Your task to perform on an android device: check the backup settings in the google photos Image 0: 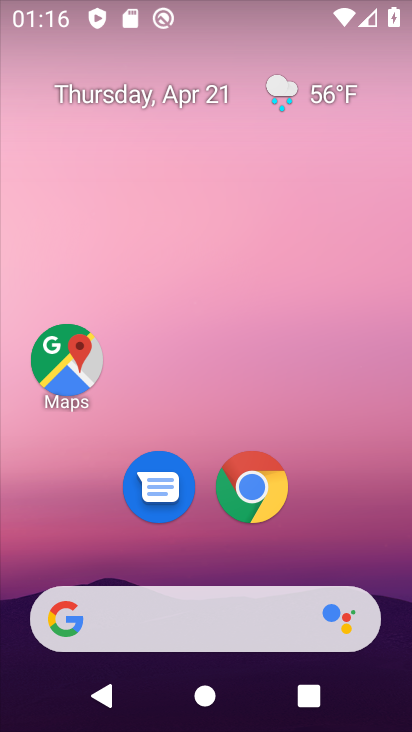
Step 0: drag from (332, 548) to (324, 90)
Your task to perform on an android device: check the backup settings in the google photos Image 1: 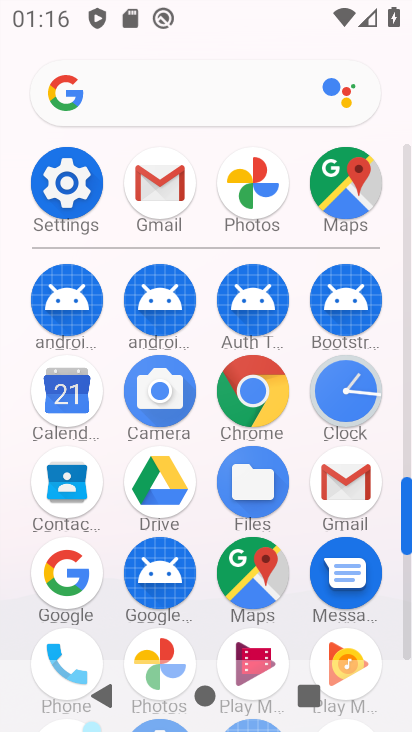
Step 1: click (248, 196)
Your task to perform on an android device: check the backup settings in the google photos Image 2: 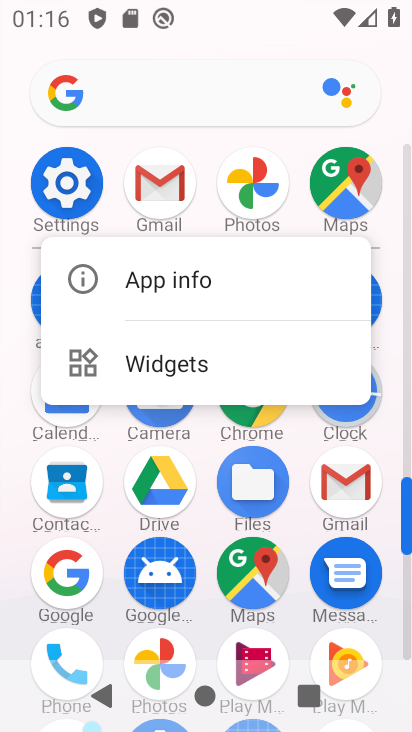
Step 2: click (245, 198)
Your task to perform on an android device: check the backup settings in the google photos Image 3: 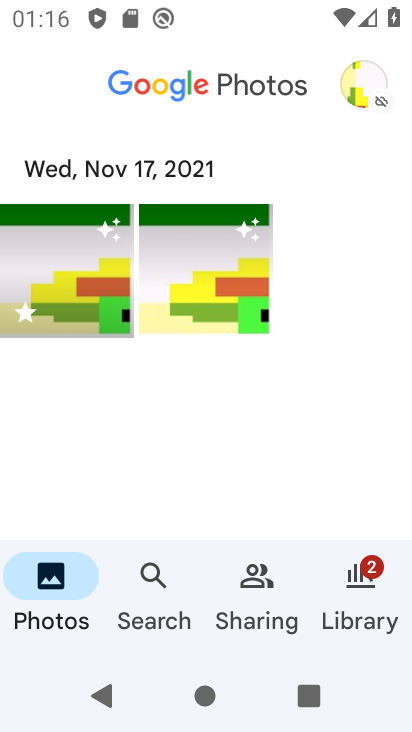
Step 3: click (361, 83)
Your task to perform on an android device: check the backup settings in the google photos Image 4: 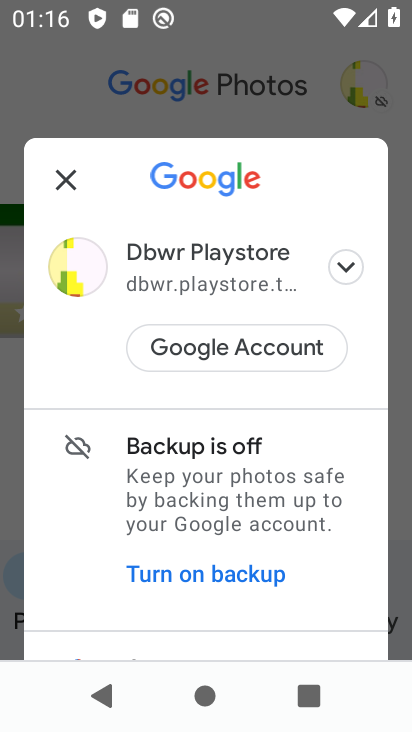
Step 4: drag from (257, 511) to (263, 195)
Your task to perform on an android device: check the backup settings in the google photos Image 5: 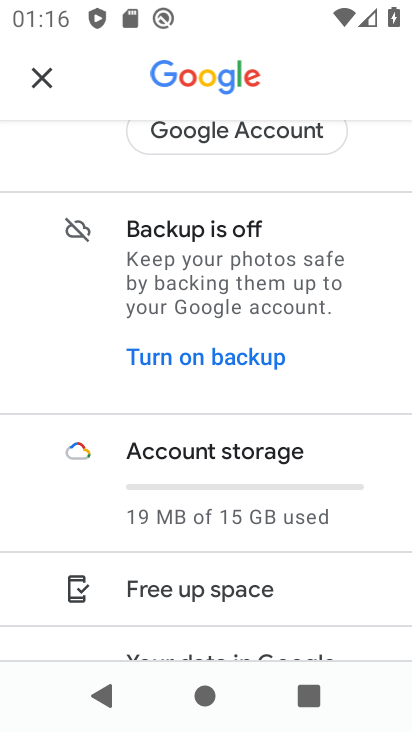
Step 5: drag from (221, 593) to (283, 318)
Your task to perform on an android device: check the backup settings in the google photos Image 6: 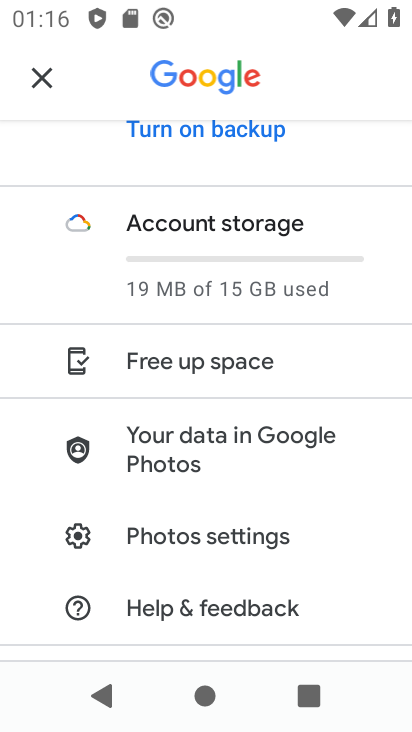
Step 6: drag from (269, 398) to (283, 276)
Your task to perform on an android device: check the backup settings in the google photos Image 7: 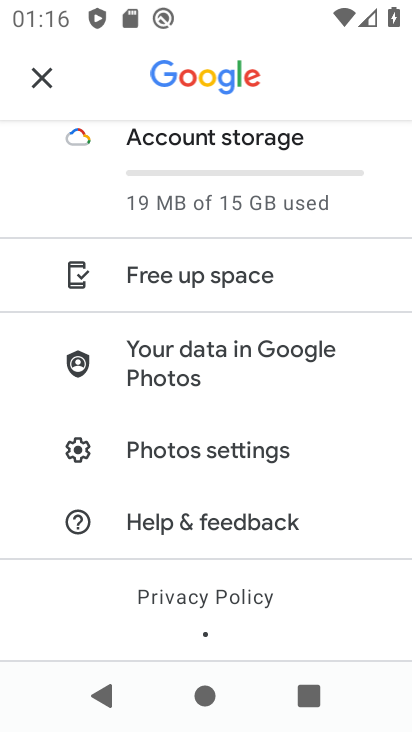
Step 7: click (244, 456)
Your task to perform on an android device: check the backup settings in the google photos Image 8: 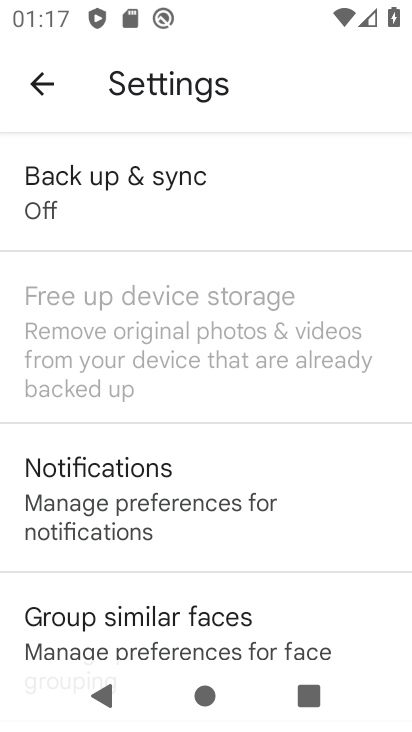
Step 8: click (137, 218)
Your task to perform on an android device: check the backup settings in the google photos Image 9: 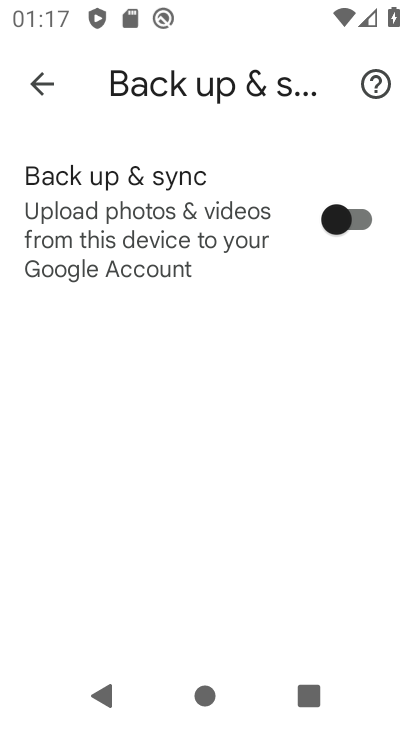
Step 9: task complete